Your task to perform on an android device: turn pop-ups on in chrome Image 0: 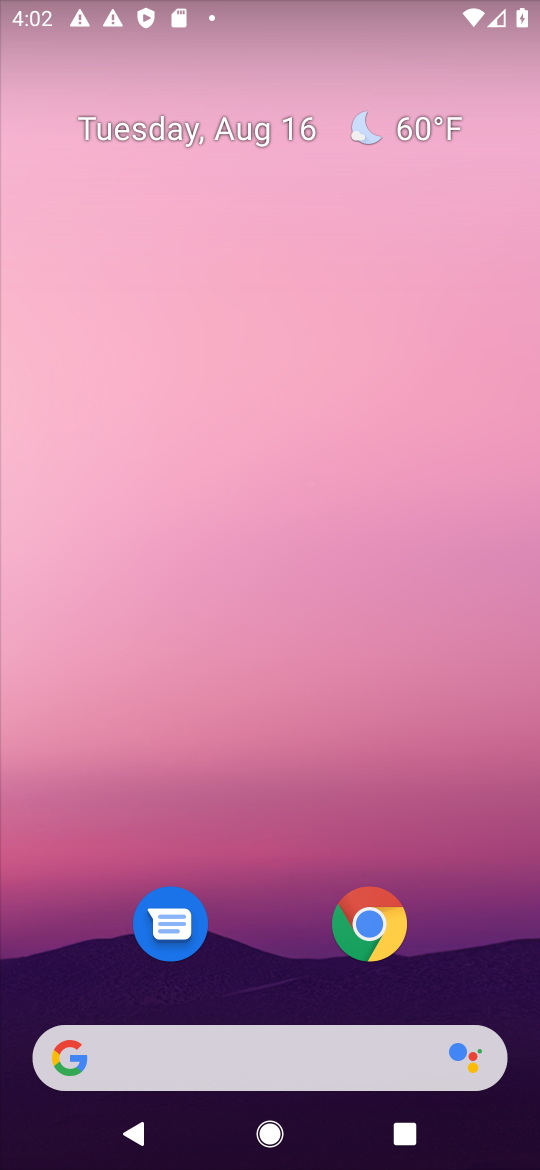
Step 0: click (353, 921)
Your task to perform on an android device: turn pop-ups on in chrome Image 1: 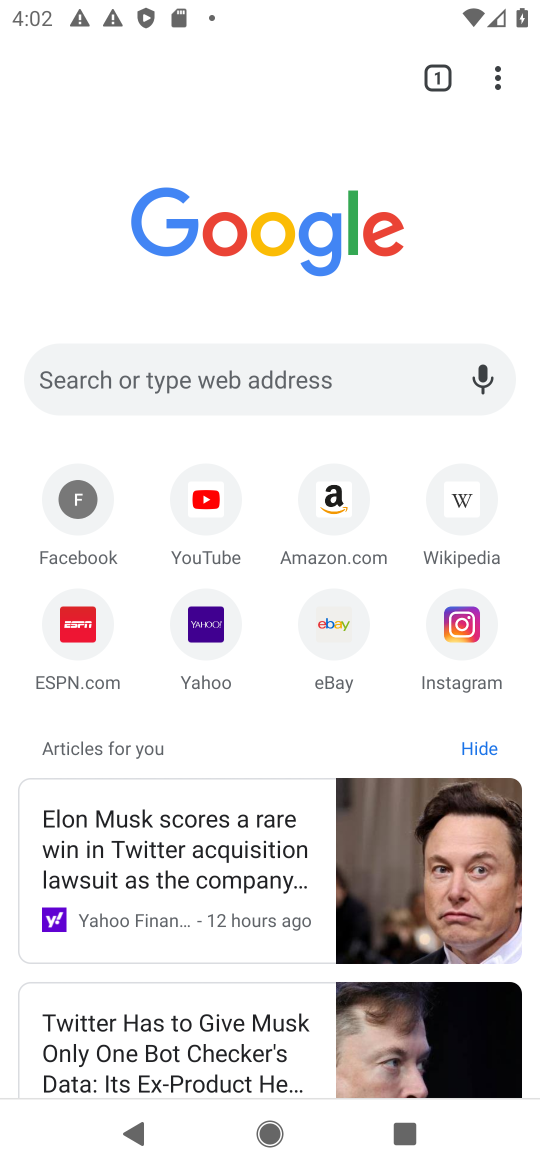
Step 1: click (497, 68)
Your task to perform on an android device: turn pop-ups on in chrome Image 2: 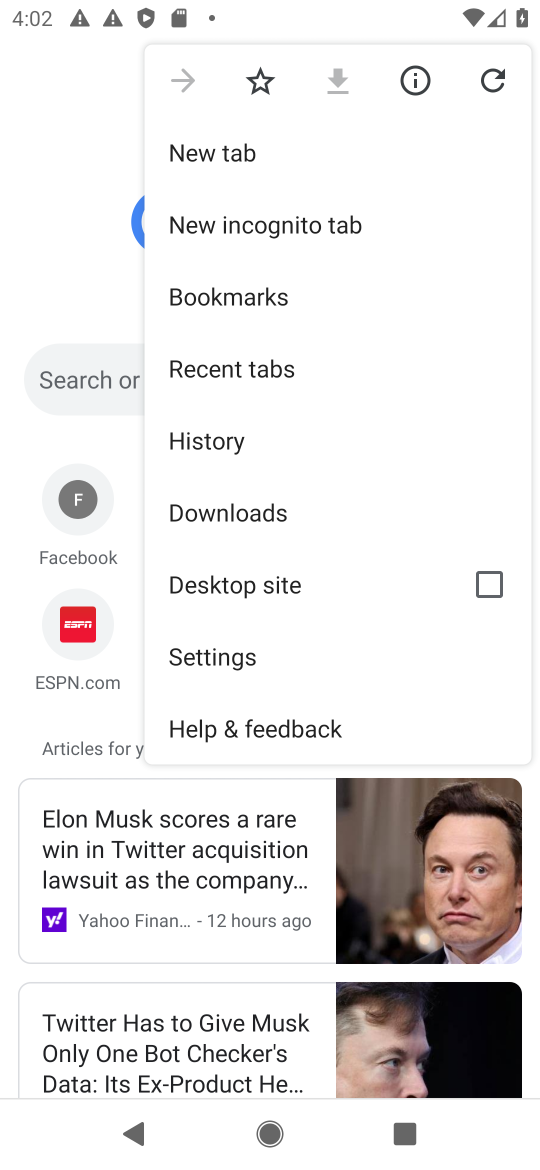
Step 2: click (197, 674)
Your task to perform on an android device: turn pop-ups on in chrome Image 3: 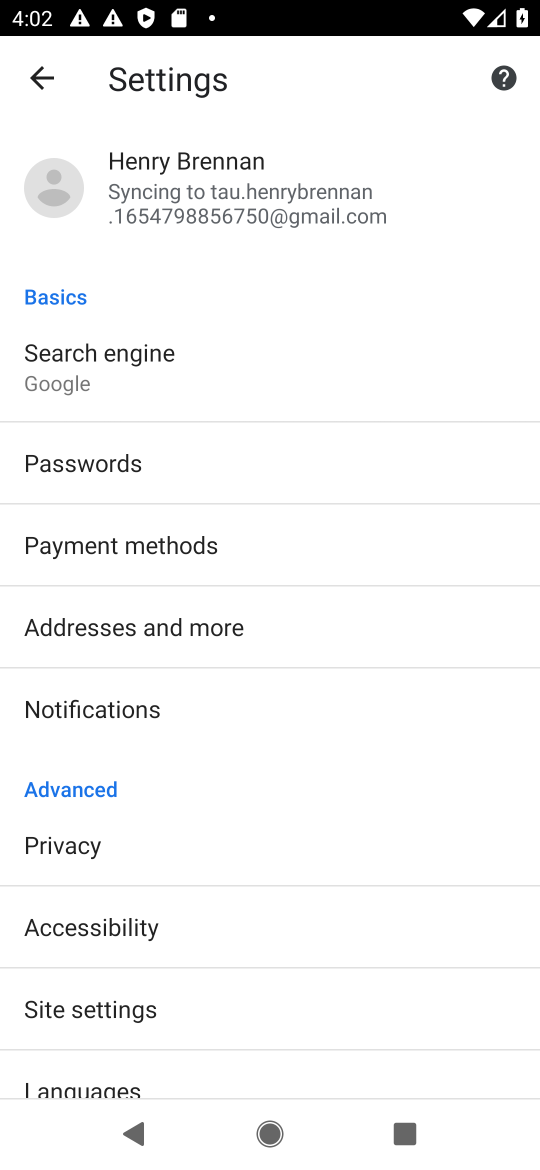
Step 3: click (127, 978)
Your task to perform on an android device: turn pop-ups on in chrome Image 4: 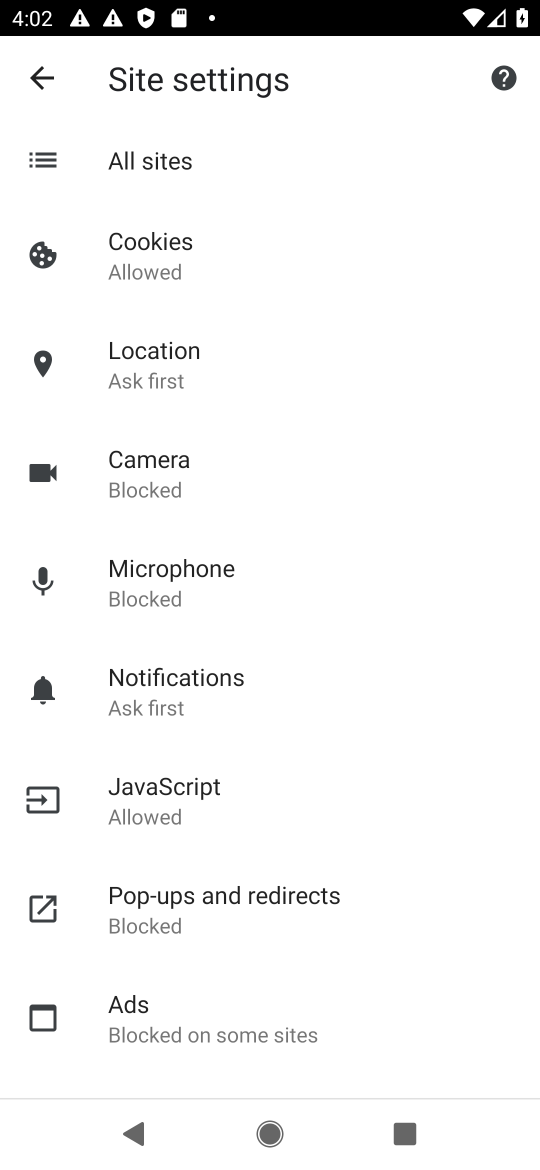
Step 4: click (208, 918)
Your task to perform on an android device: turn pop-ups on in chrome Image 5: 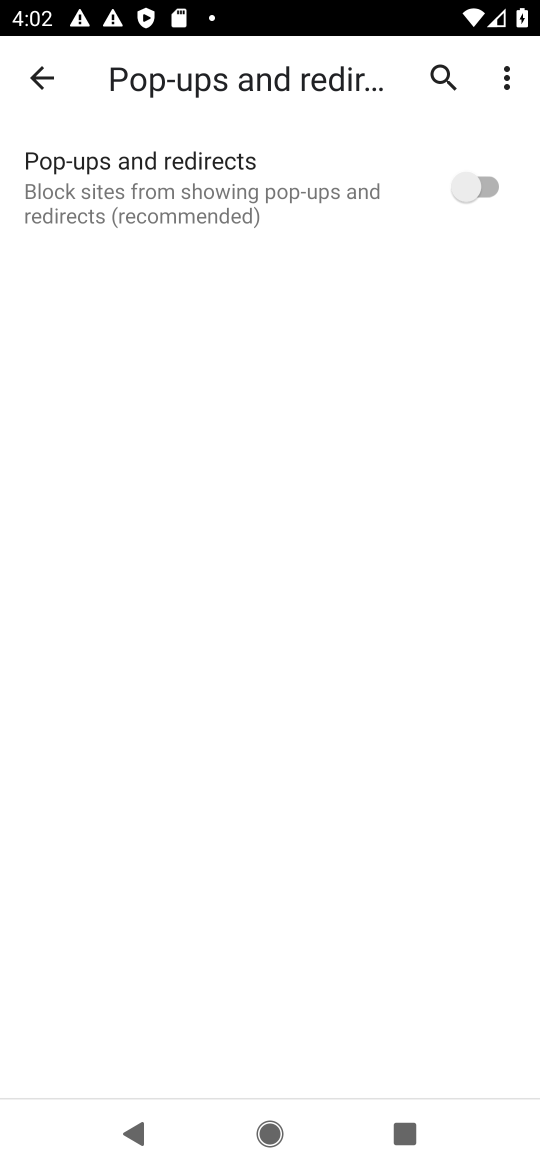
Step 5: click (491, 182)
Your task to perform on an android device: turn pop-ups on in chrome Image 6: 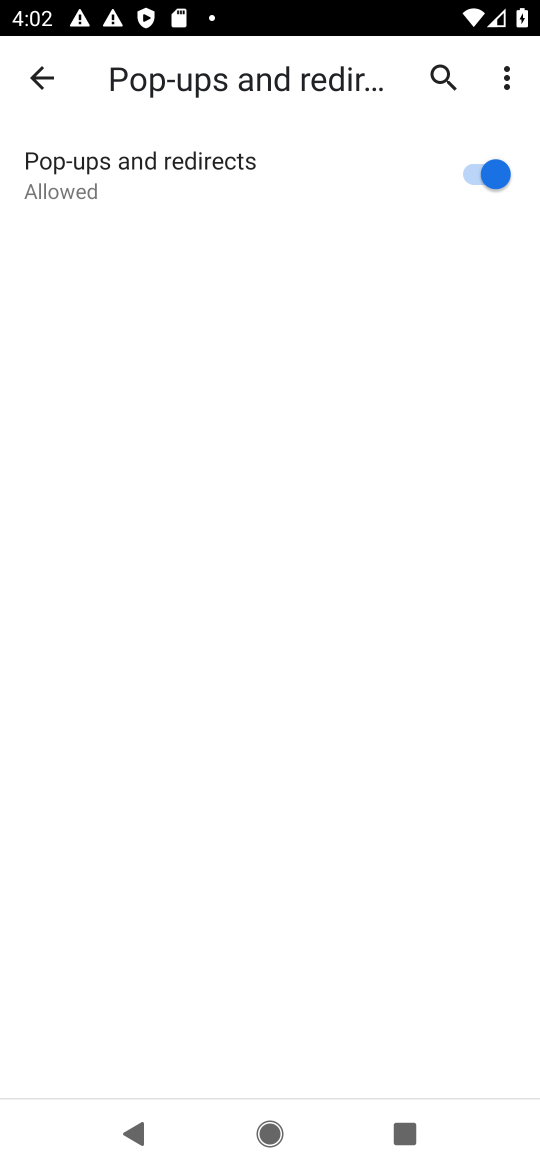
Step 6: task complete